Your task to perform on an android device: set an alarm Image 0: 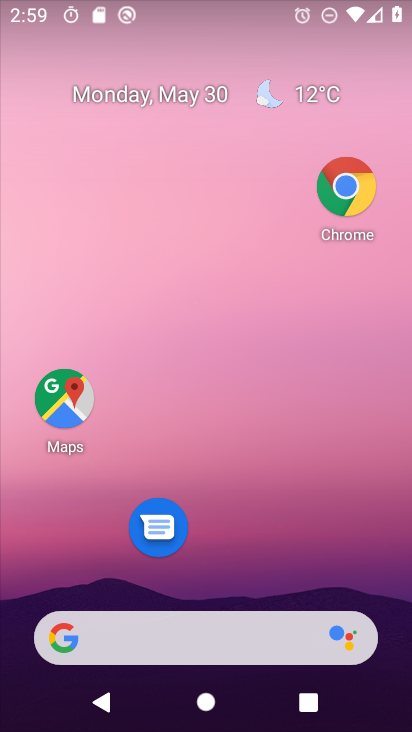
Step 0: drag from (206, 518) to (294, 17)
Your task to perform on an android device: set an alarm Image 1: 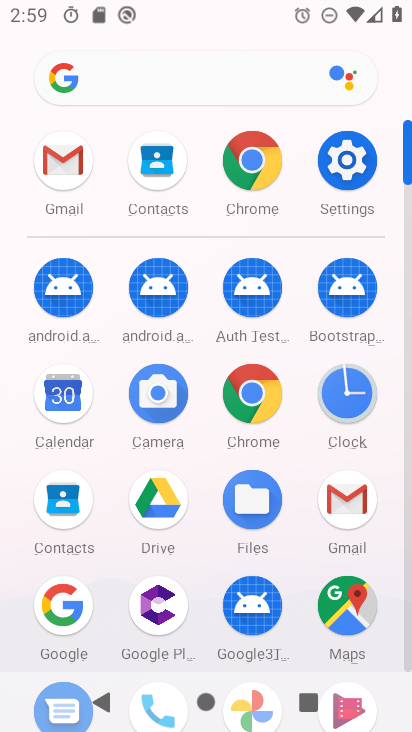
Step 1: click (342, 389)
Your task to perform on an android device: set an alarm Image 2: 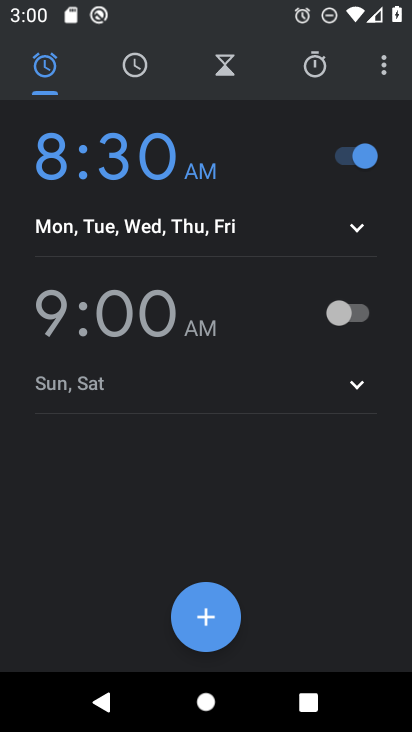
Step 2: click (346, 293)
Your task to perform on an android device: set an alarm Image 3: 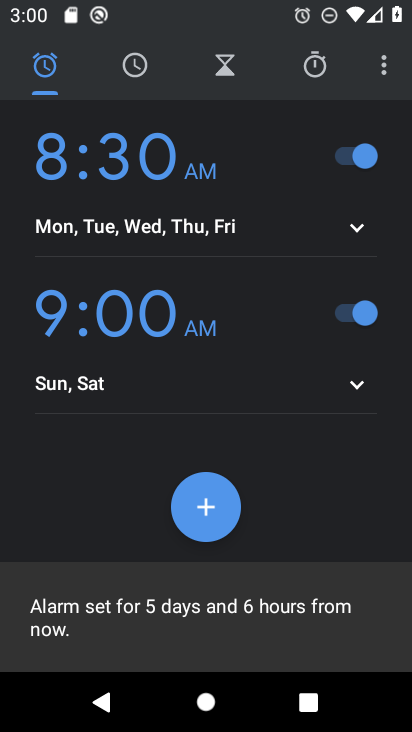
Step 3: task complete